Your task to perform on an android device: check storage Image 0: 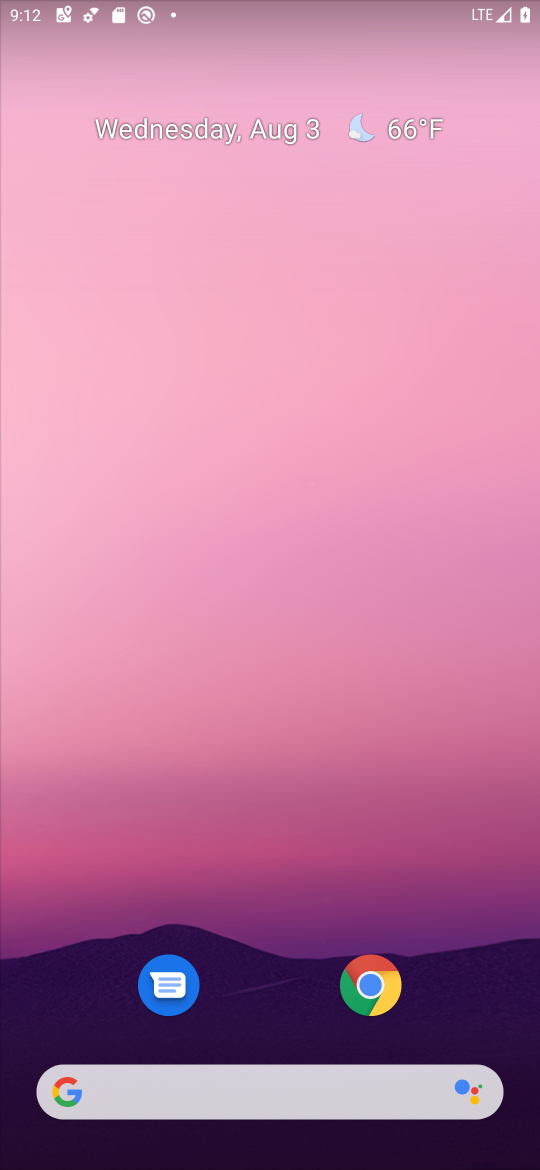
Step 0: drag from (259, 1003) to (303, 314)
Your task to perform on an android device: check storage Image 1: 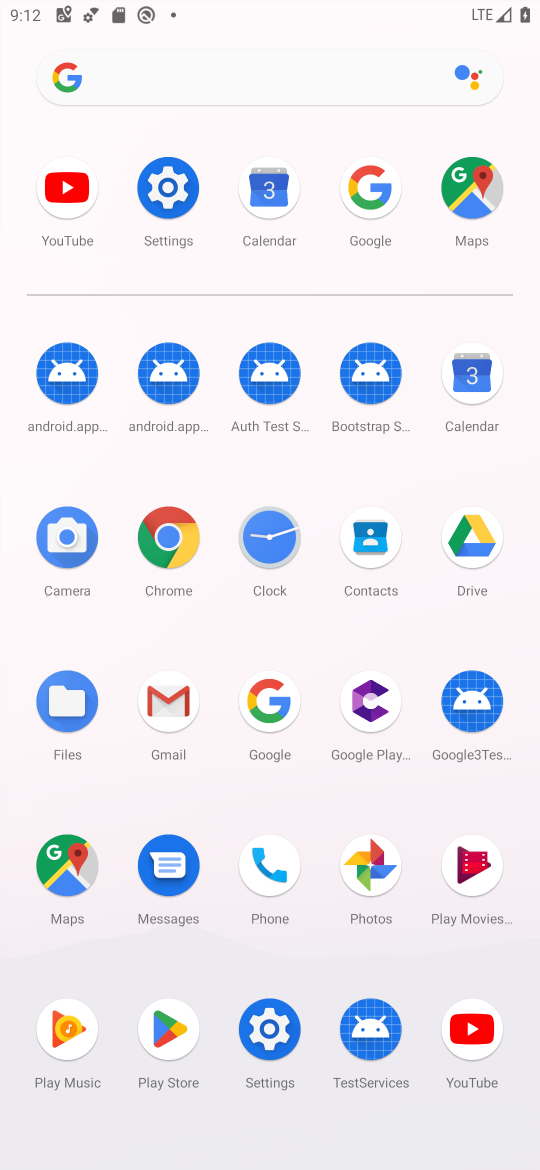
Step 1: click (164, 186)
Your task to perform on an android device: check storage Image 2: 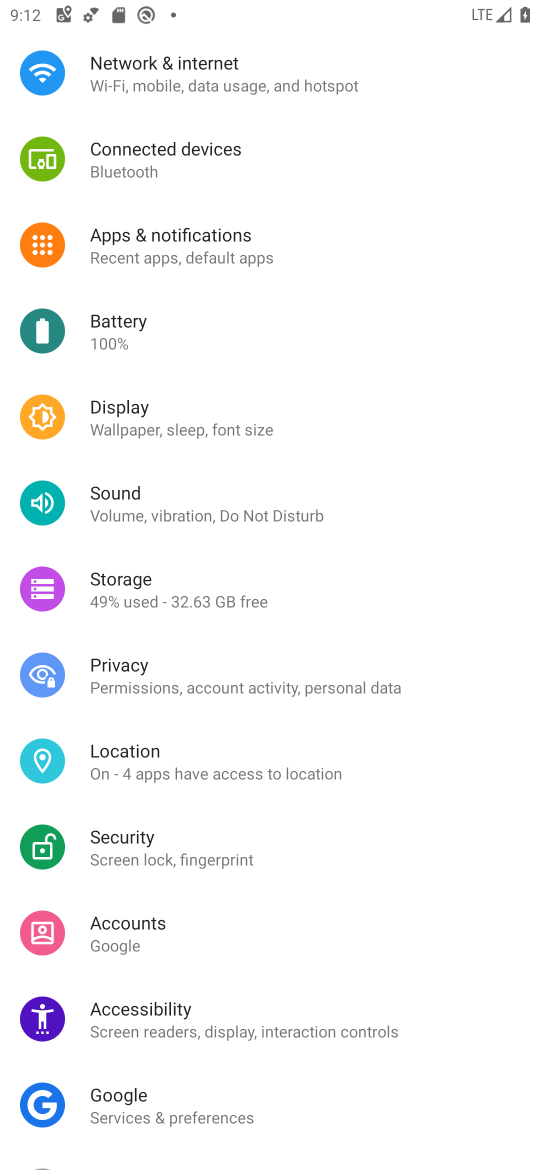
Step 2: click (213, 600)
Your task to perform on an android device: check storage Image 3: 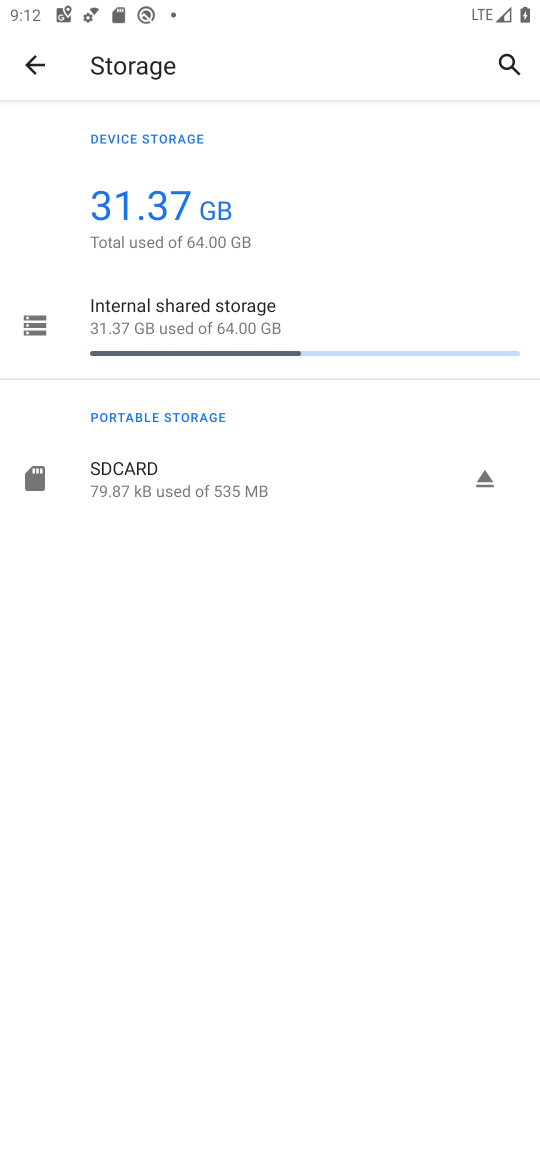
Step 3: task complete